Your task to perform on an android device: Go to Android settings Image 0: 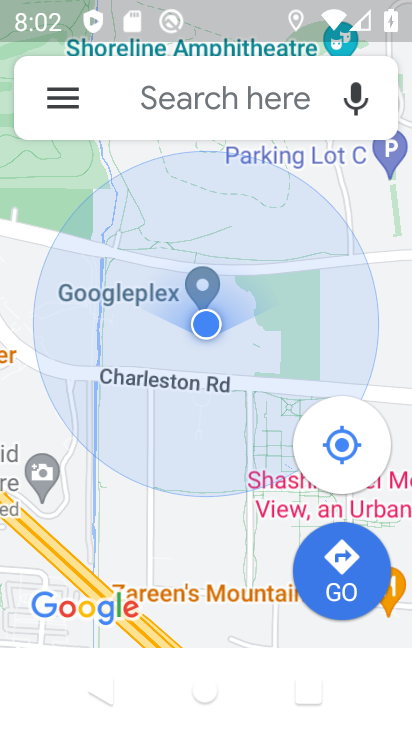
Step 0: press home button
Your task to perform on an android device: Go to Android settings Image 1: 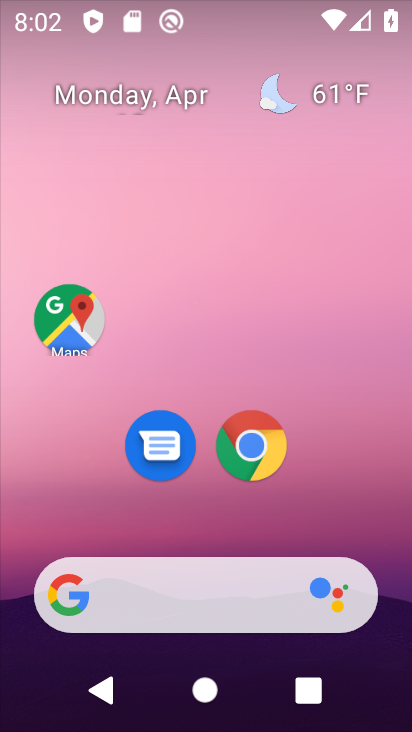
Step 1: drag from (370, 521) to (350, 108)
Your task to perform on an android device: Go to Android settings Image 2: 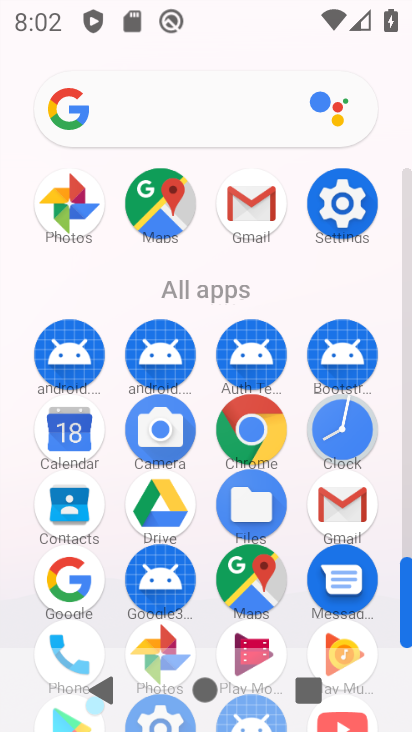
Step 2: click (339, 213)
Your task to perform on an android device: Go to Android settings Image 3: 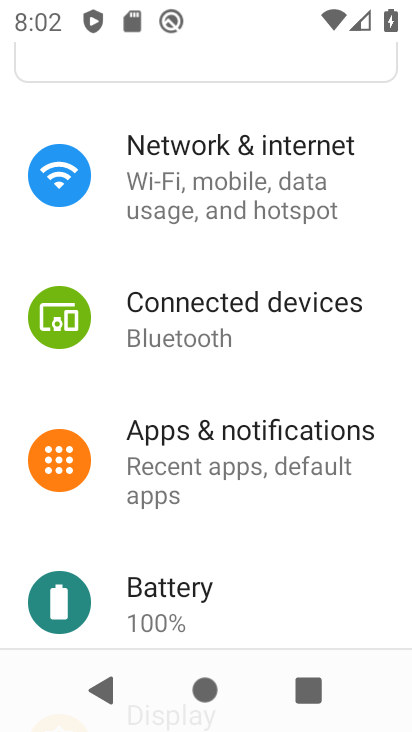
Step 3: drag from (280, 609) to (313, 281)
Your task to perform on an android device: Go to Android settings Image 4: 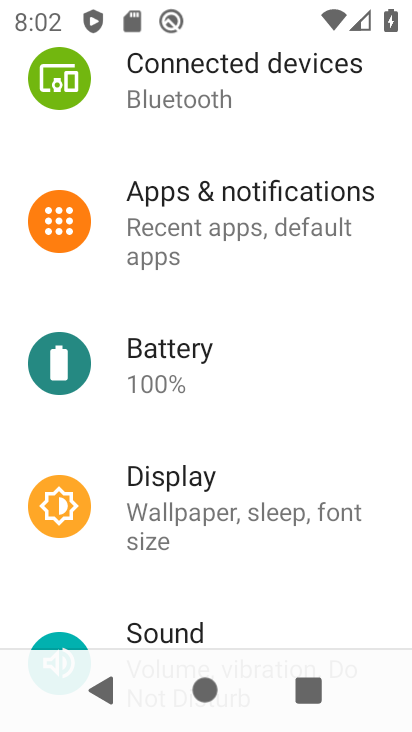
Step 4: drag from (267, 582) to (342, 138)
Your task to perform on an android device: Go to Android settings Image 5: 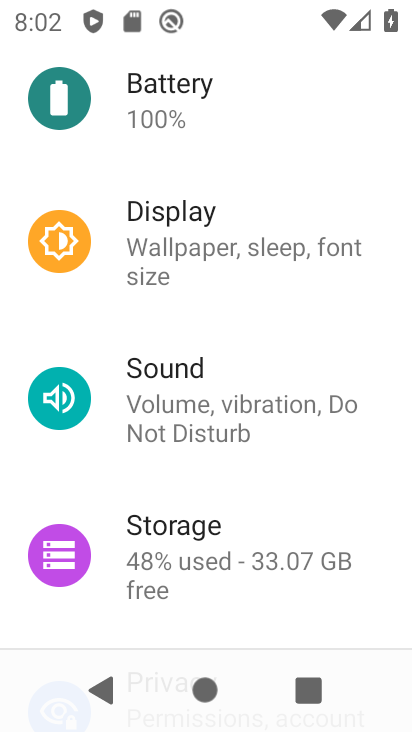
Step 5: drag from (284, 617) to (336, 153)
Your task to perform on an android device: Go to Android settings Image 6: 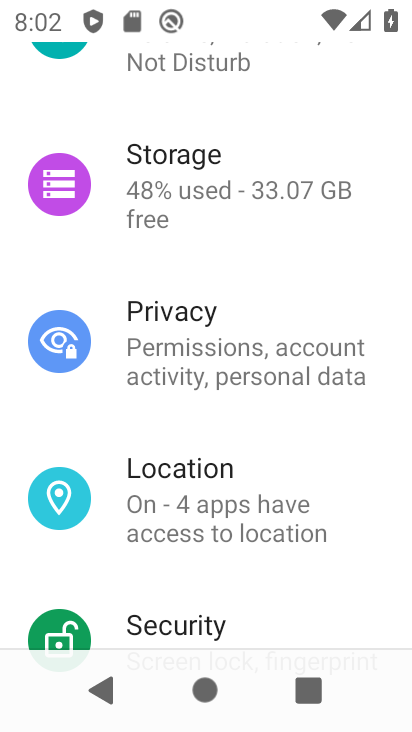
Step 6: drag from (311, 596) to (348, 130)
Your task to perform on an android device: Go to Android settings Image 7: 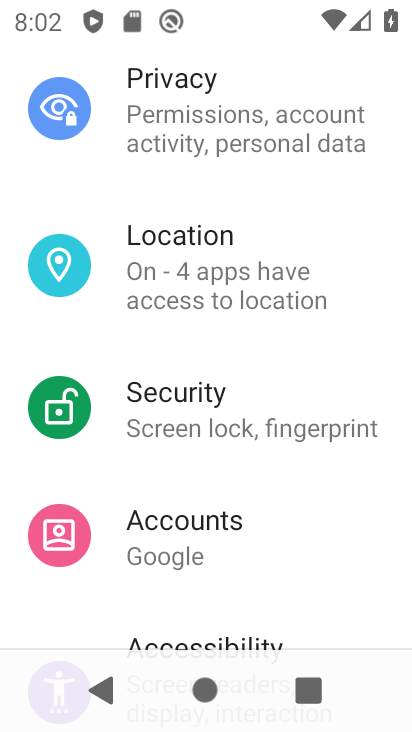
Step 7: drag from (325, 525) to (363, 86)
Your task to perform on an android device: Go to Android settings Image 8: 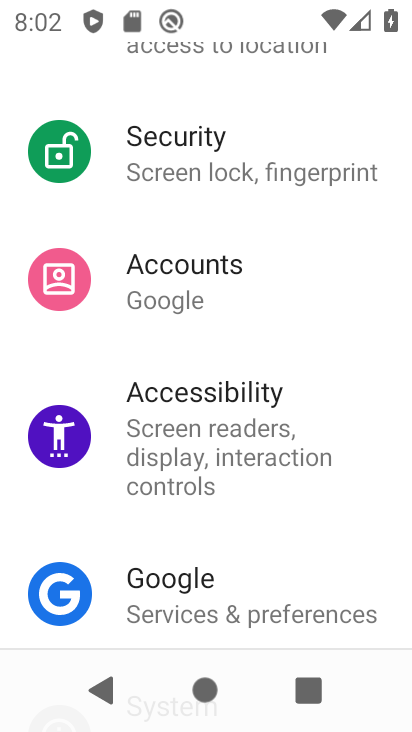
Step 8: drag from (330, 525) to (382, 111)
Your task to perform on an android device: Go to Android settings Image 9: 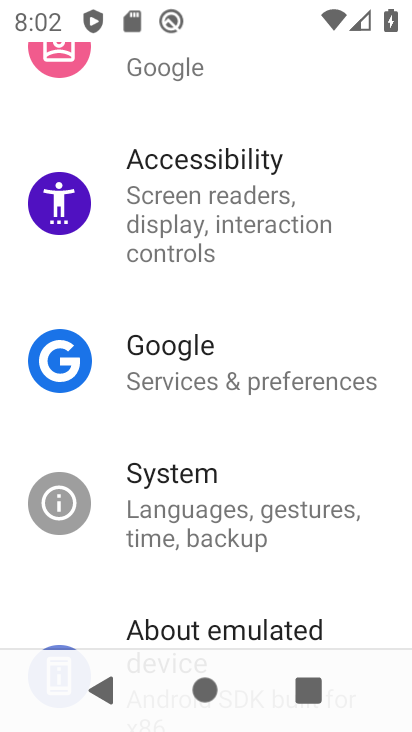
Step 9: drag from (326, 571) to (359, 177)
Your task to perform on an android device: Go to Android settings Image 10: 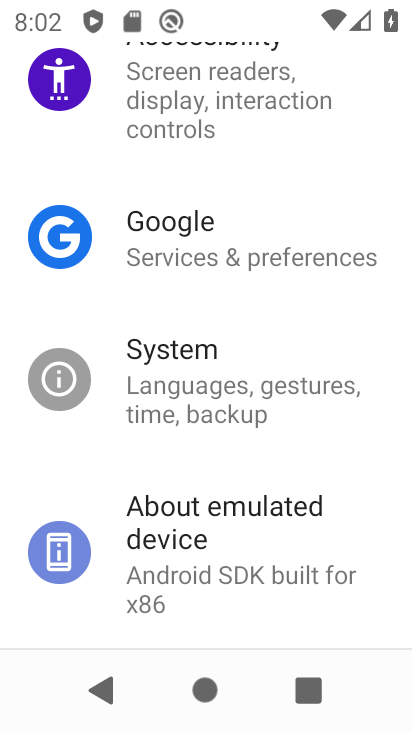
Step 10: click (265, 496)
Your task to perform on an android device: Go to Android settings Image 11: 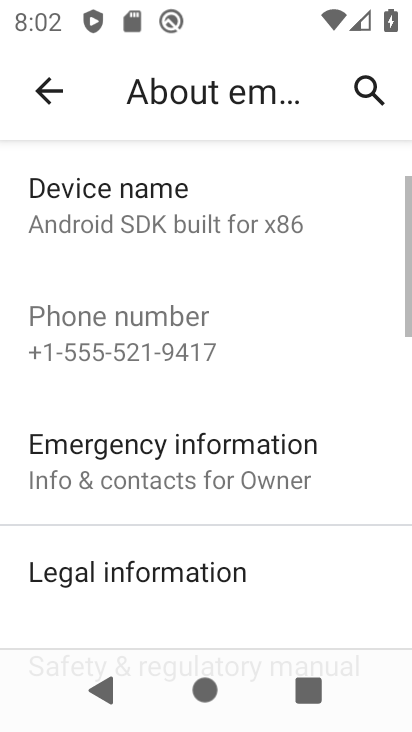
Step 11: task complete